Your task to perform on an android device: move a message to another label in the gmail app Image 0: 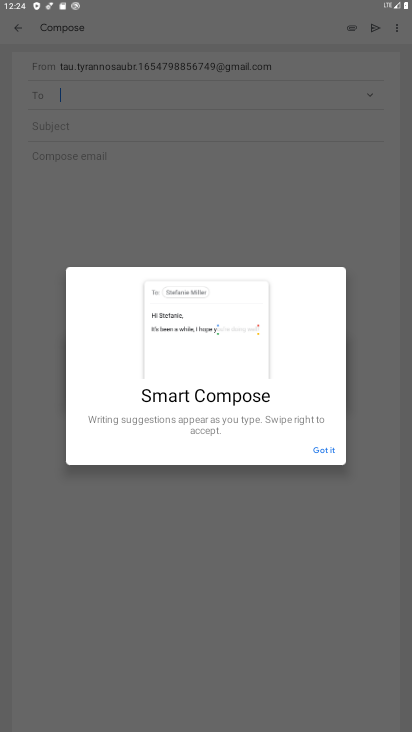
Step 0: press home button
Your task to perform on an android device: move a message to another label in the gmail app Image 1: 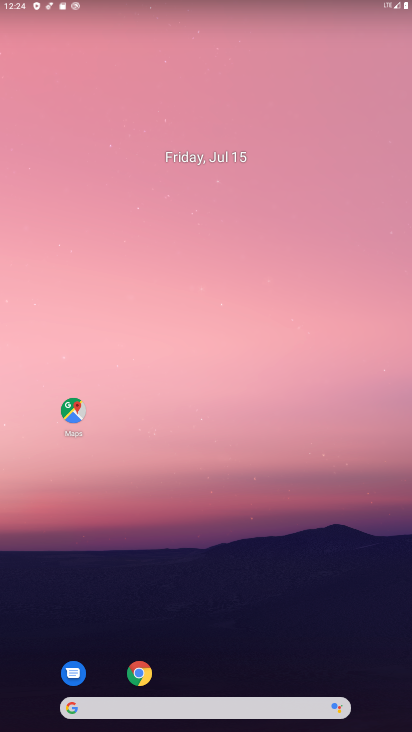
Step 1: drag from (393, 624) to (379, 179)
Your task to perform on an android device: move a message to another label in the gmail app Image 2: 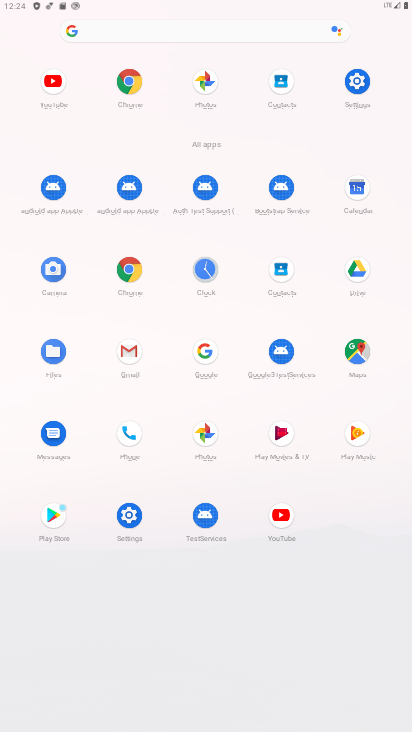
Step 2: click (133, 354)
Your task to perform on an android device: move a message to another label in the gmail app Image 3: 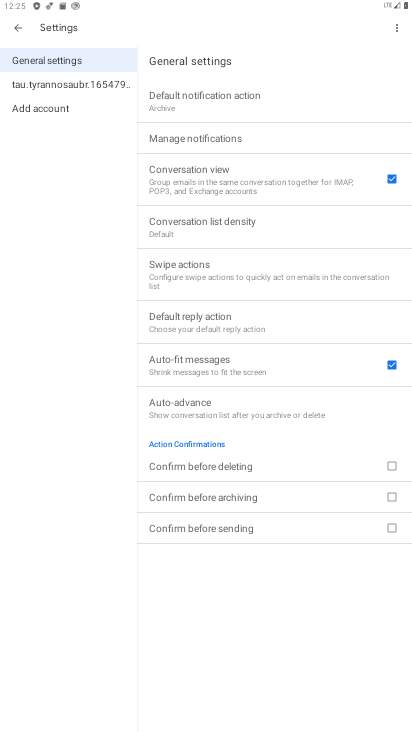
Step 3: click (10, 23)
Your task to perform on an android device: move a message to another label in the gmail app Image 4: 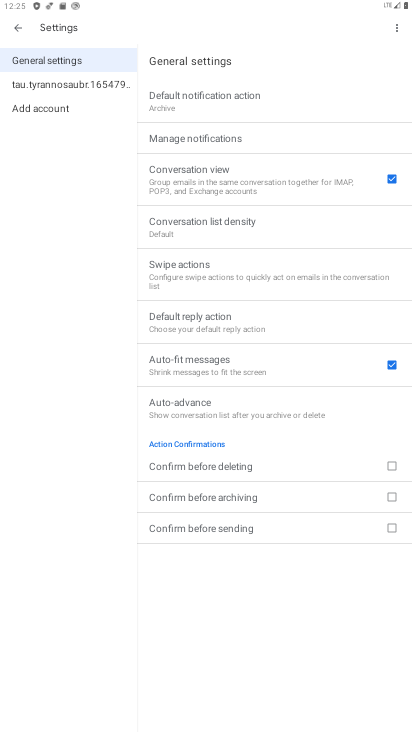
Step 4: click (20, 21)
Your task to perform on an android device: move a message to another label in the gmail app Image 5: 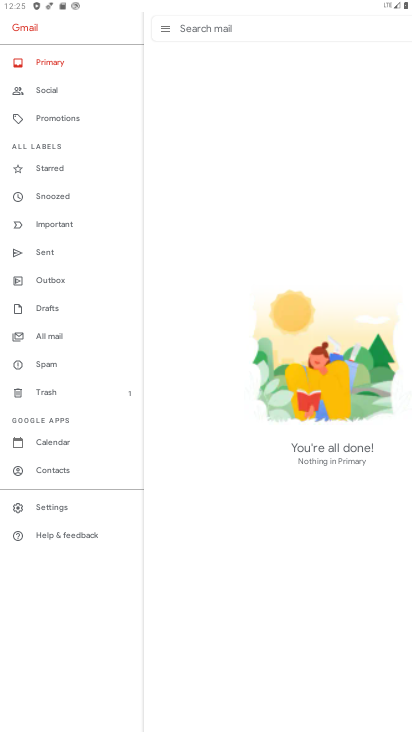
Step 5: task complete